Your task to perform on an android device: turn off improve location accuracy Image 0: 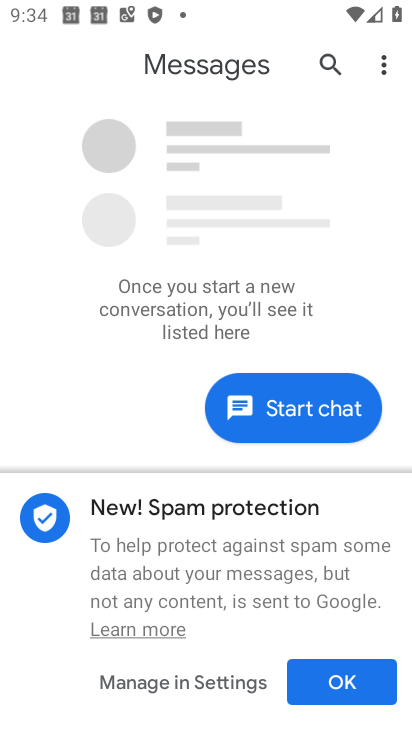
Step 0: press home button
Your task to perform on an android device: turn off improve location accuracy Image 1: 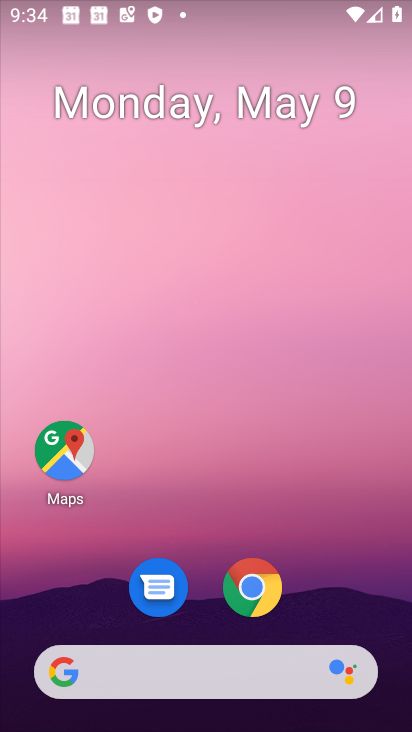
Step 1: drag from (216, 630) to (304, 97)
Your task to perform on an android device: turn off improve location accuracy Image 2: 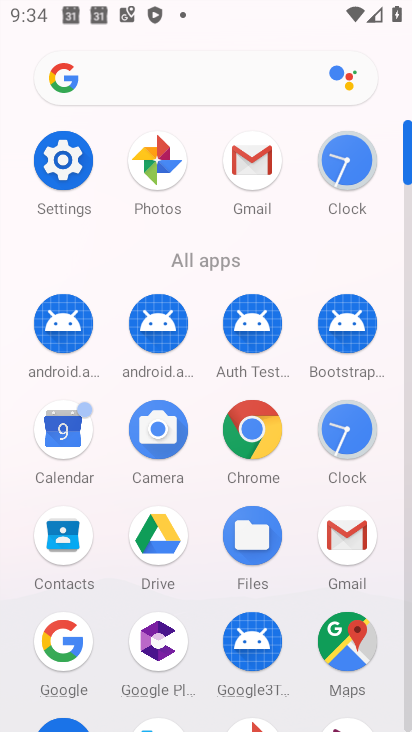
Step 2: click (58, 156)
Your task to perform on an android device: turn off improve location accuracy Image 3: 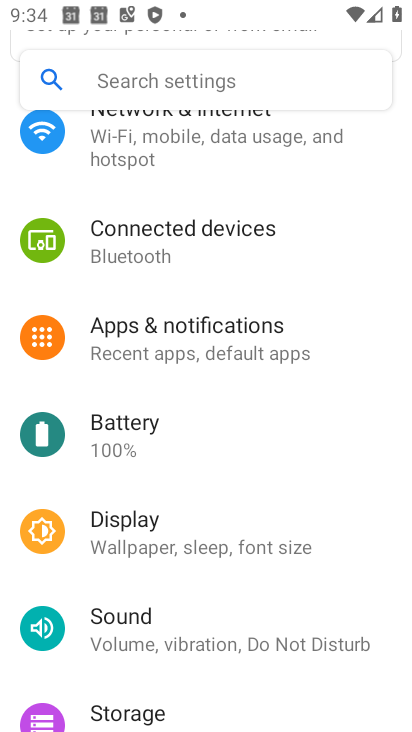
Step 3: drag from (151, 661) to (274, 299)
Your task to perform on an android device: turn off improve location accuracy Image 4: 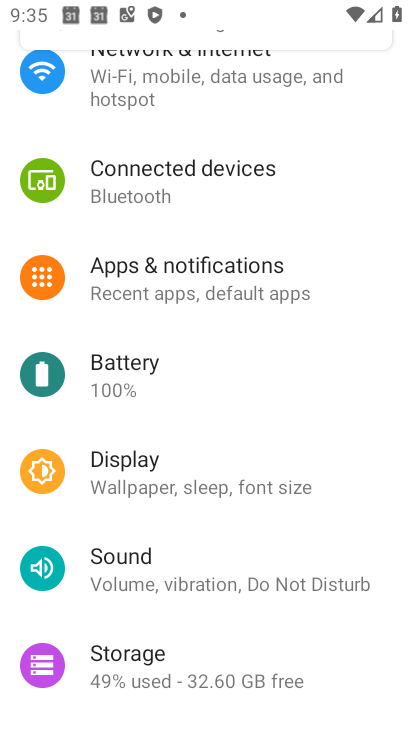
Step 4: drag from (253, 618) to (210, 259)
Your task to perform on an android device: turn off improve location accuracy Image 5: 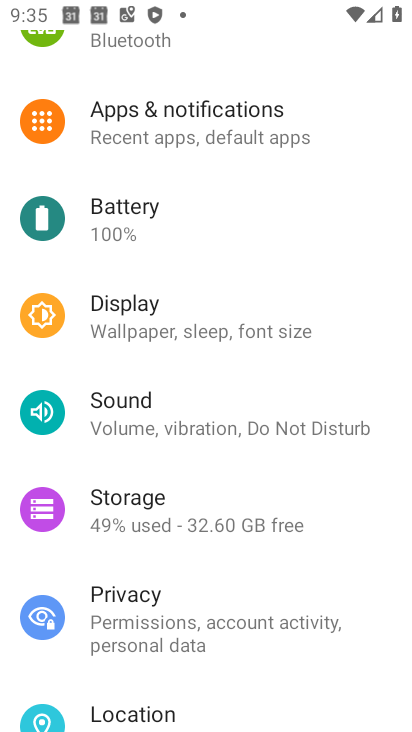
Step 5: click (152, 720)
Your task to perform on an android device: turn off improve location accuracy Image 6: 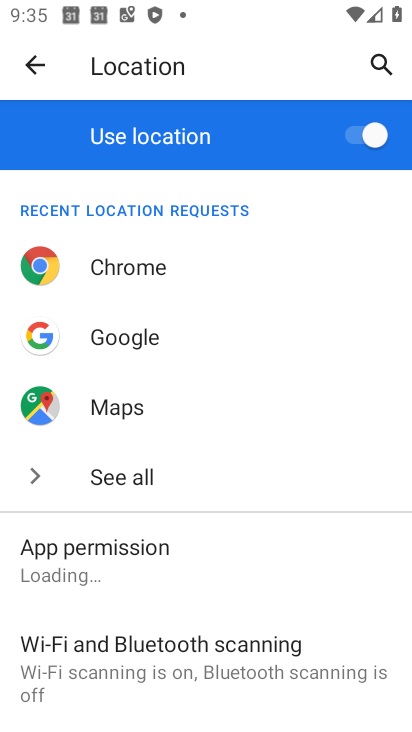
Step 6: drag from (152, 720) to (132, 280)
Your task to perform on an android device: turn off improve location accuracy Image 7: 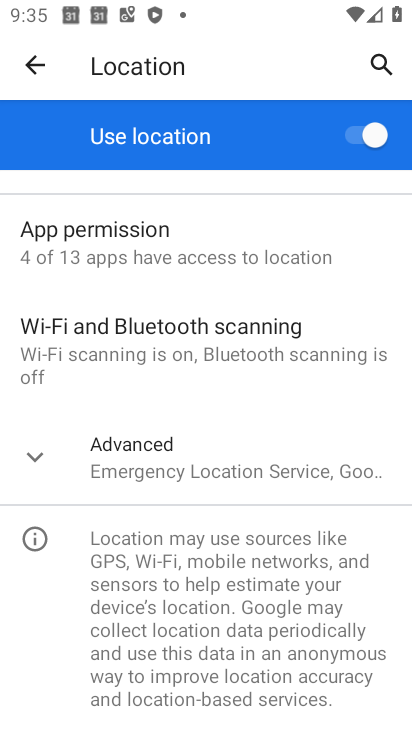
Step 7: click (133, 482)
Your task to perform on an android device: turn off improve location accuracy Image 8: 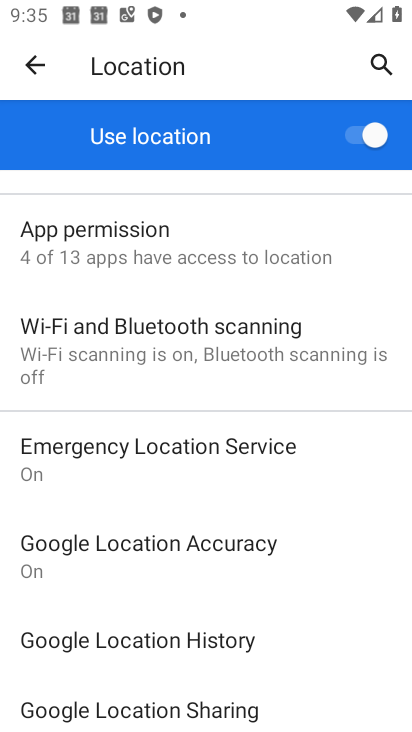
Step 8: click (125, 577)
Your task to perform on an android device: turn off improve location accuracy Image 9: 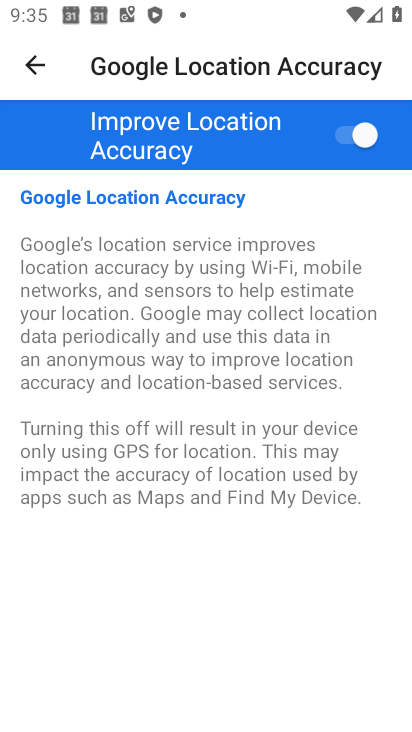
Step 9: click (354, 137)
Your task to perform on an android device: turn off improve location accuracy Image 10: 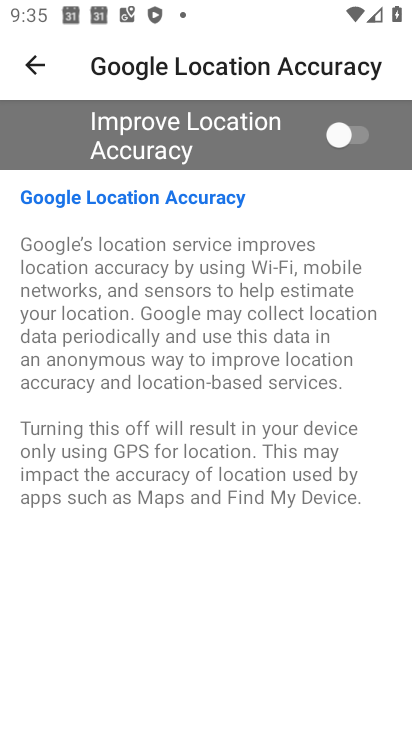
Step 10: task complete